Your task to perform on an android device: allow notifications from all sites in the chrome app Image 0: 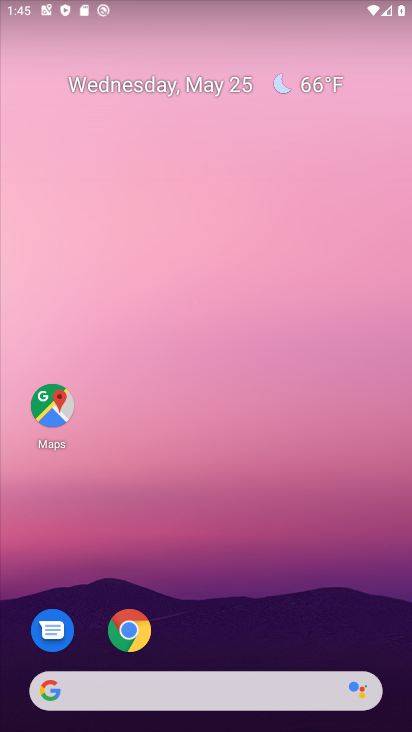
Step 0: press home button
Your task to perform on an android device: allow notifications from all sites in the chrome app Image 1: 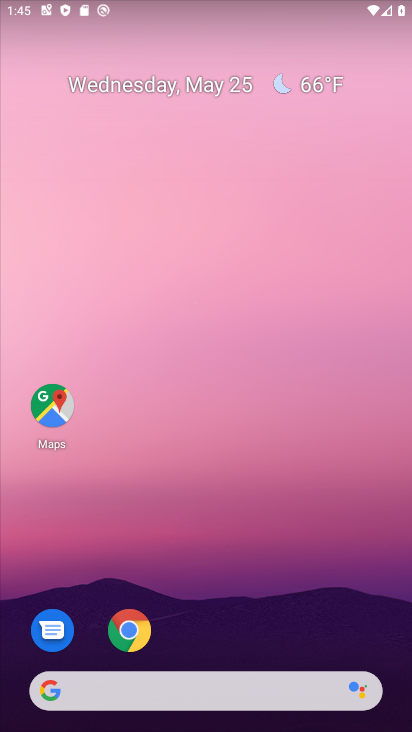
Step 1: click (124, 624)
Your task to perform on an android device: allow notifications from all sites in the chrome app Image 2: 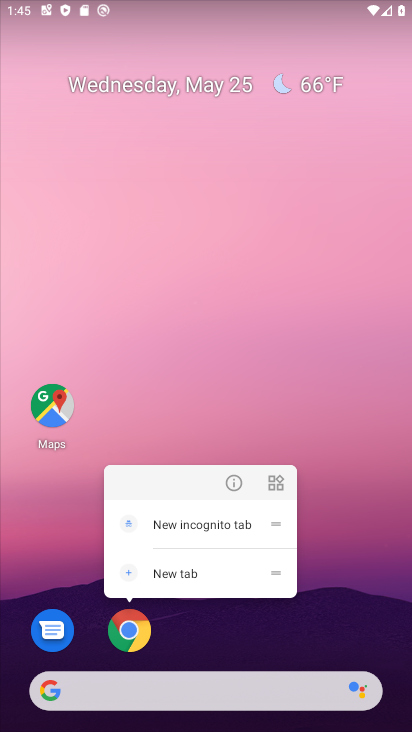
Step 2: click (129, 629)
Your task to perform on an android device: allow notifications from all sites in the chrome app Image 3: 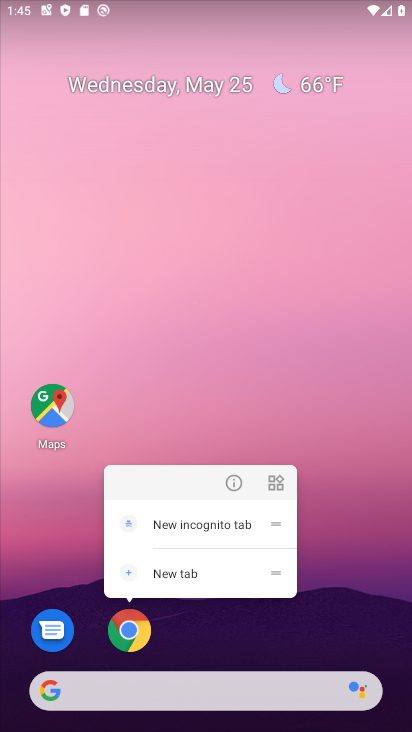
Step 3: click (283, 623)
Your task to perform on an android device: allow notifications from all sites in the chrome app Image 4: 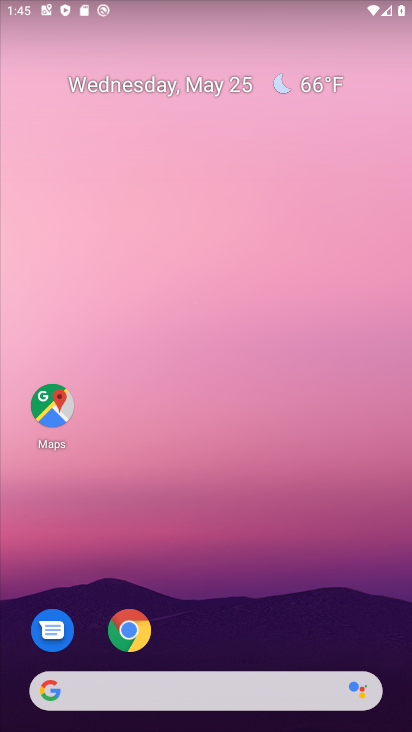
Step 4: drag from (324, 640) to (323, 148)
Your task to perform on an android device: allow notifications from all sites in the chrome app Image 5: 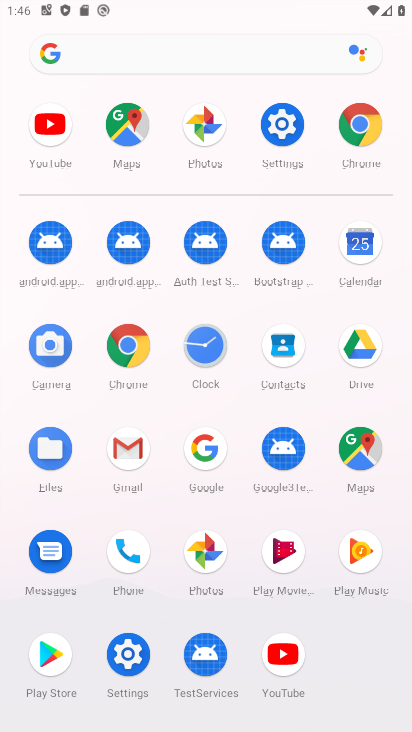
Step 5: click (355, 123)
Your task to perform on an android device: allow notifications from all sites in the chrome app Image 6: 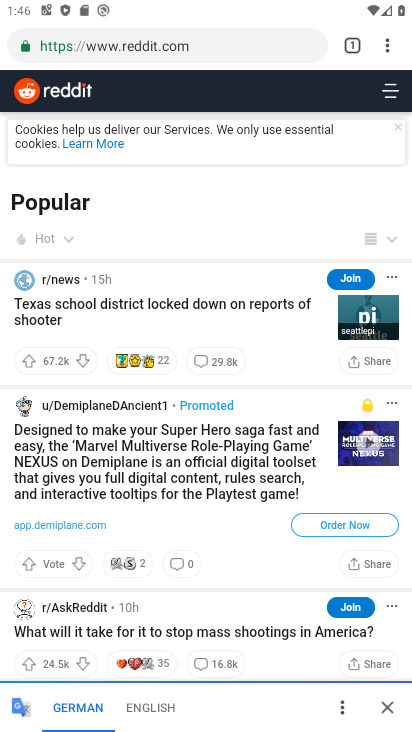
Step 6: click (392, 40)
Your task to perform on an android device: allow notifications from all sites in the chrome app Image 7: 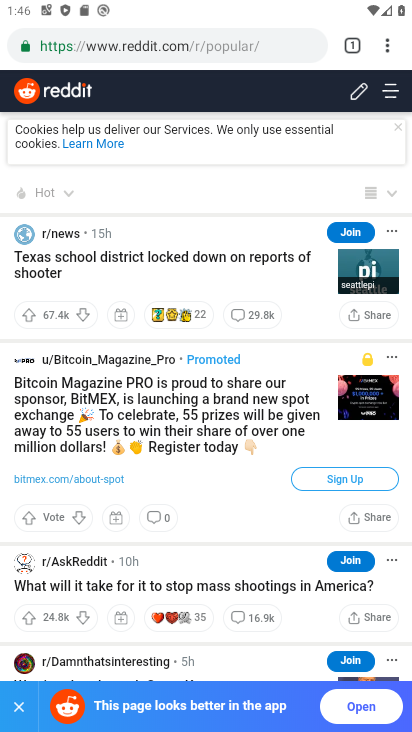
Step 7: click (386, 37)
Your task to perform on an android device: allow notifications from all sites in the chrome app Image 8: 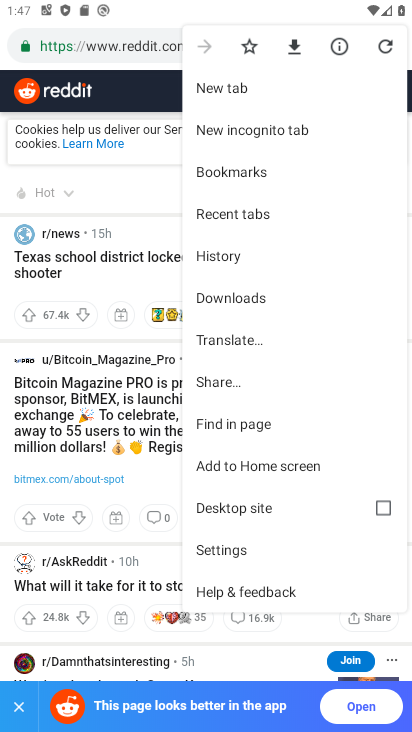
Step 8: click (252, 552)
Your task to perform on an android device: allow notifications from all sites in the chrome app Image 9: 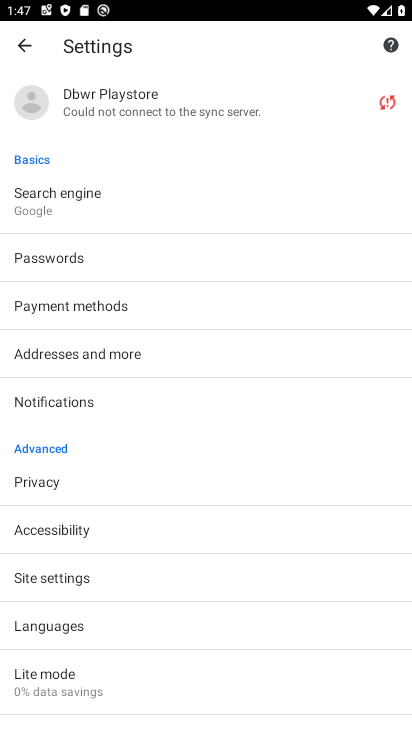
Step 9: click (104, 582)
Your task to perform on an android device: allow notifications from all sites in the chrome app Image 10: 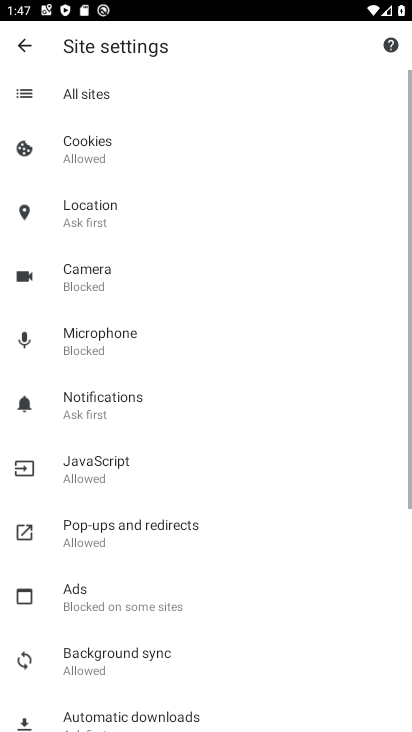
Step 10: click (124, 92)
Your task to perform on an android device: allow notifications from all sites in the chrome app Image 11: 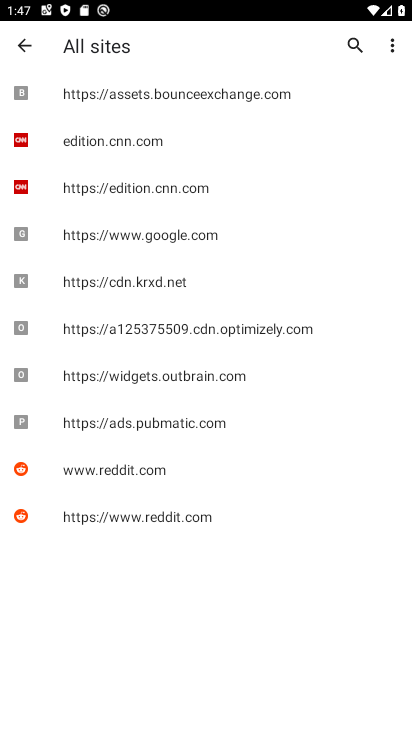
Step 11: click (158, 94)
Your task to perform on an android device: allow notifications from all sites in the chrome app Image 12: 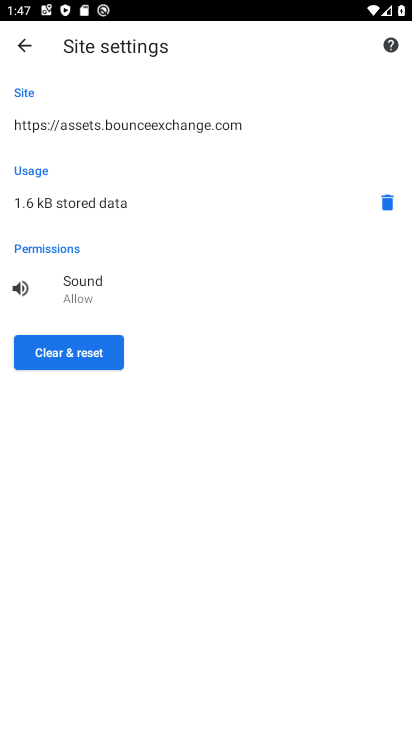
Step 12: click (18, 38)
Your task to perform on an android device: allow notifications from all sites in the chrome app Image 13: 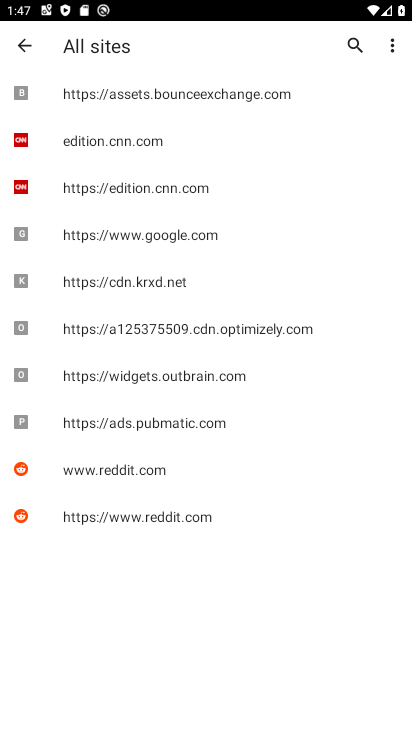
Step 13: click (98, 230)
Your task to perform on an android device: allow notifications from all sites in the chrome app Image 14: 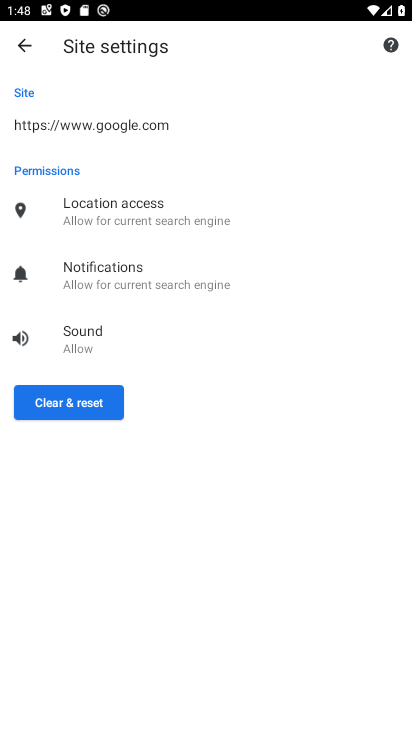
Step 14: click (21, 47)
Your task to perform on an android device: allow notifications from all sites in the chrome app Image 15: 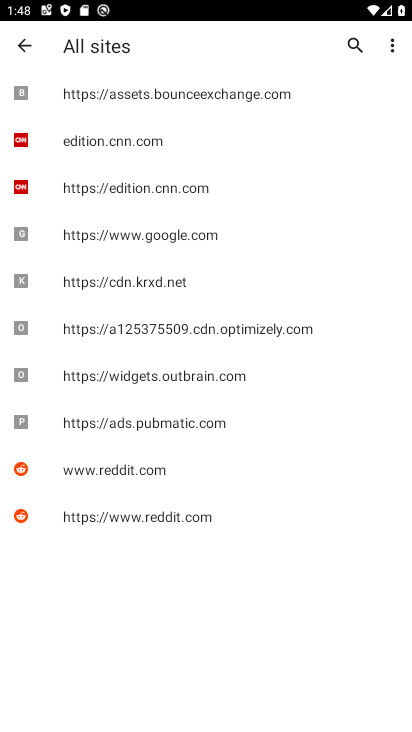
Step 15: click (90, 472)
Your task to perform on an android device: allow notifications from all sites in the chrome app Image 16: 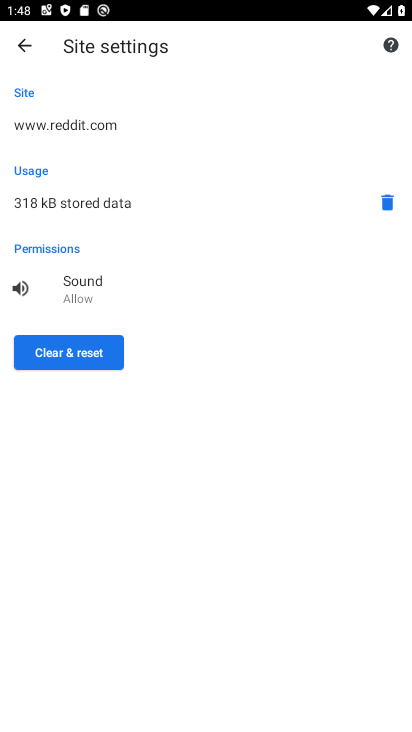
Step 16: click (22, 38)
Your task to perform on an android device: allow notifications from all sites in the chrome app Image 17: 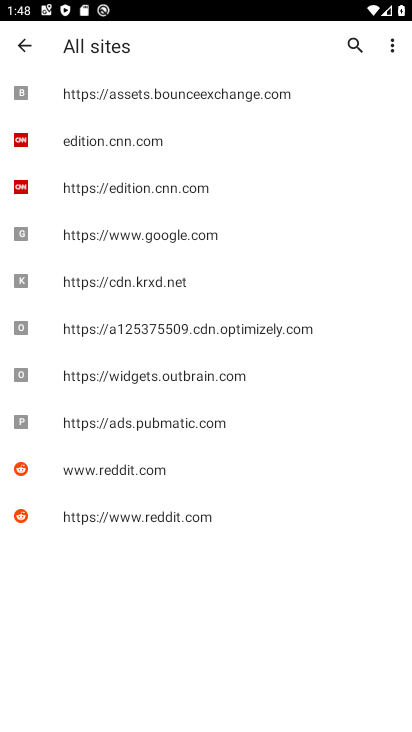
Step 17: task complete